Your task to perform on an android device: all mails in gmail Image 0: 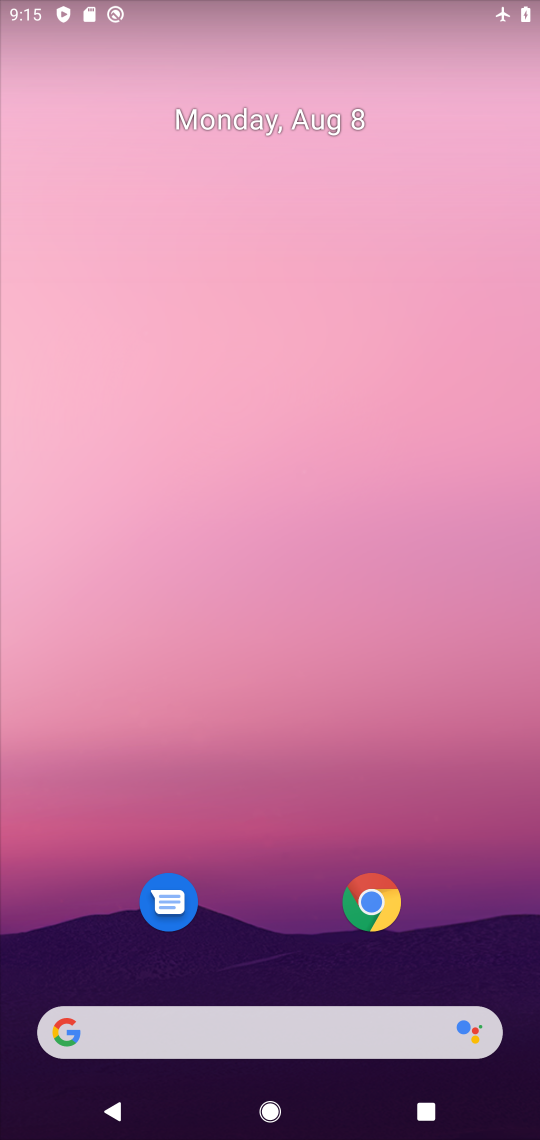
Step 0: drag from (254, 944) to (176, 237)
Your task to perform on an android device: all mails in gmail Image 1: 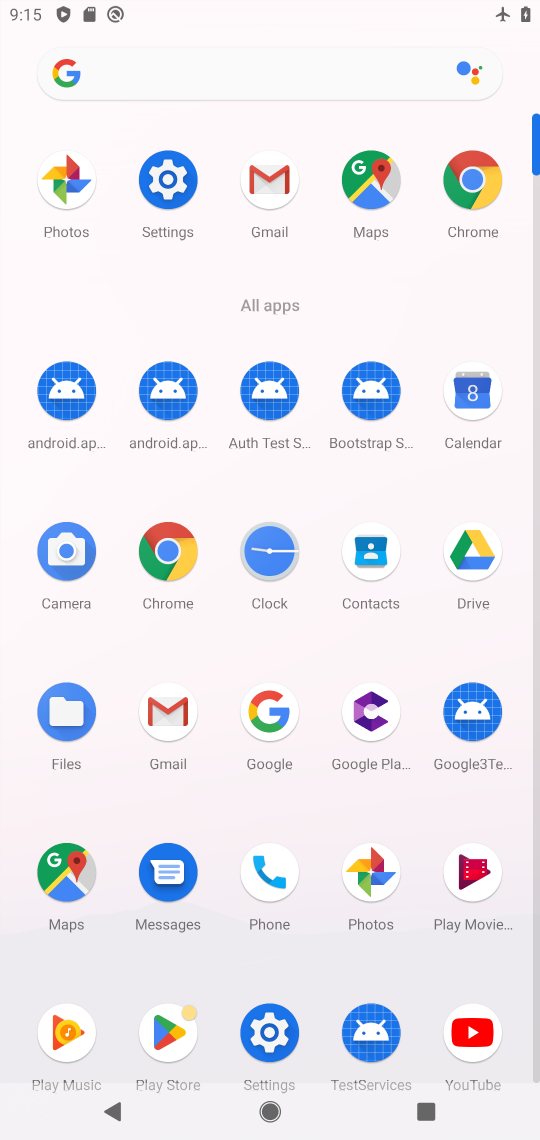
Step 1: click (158, 741)
Your task to perform on an android device: all mails in gmail Image 2: 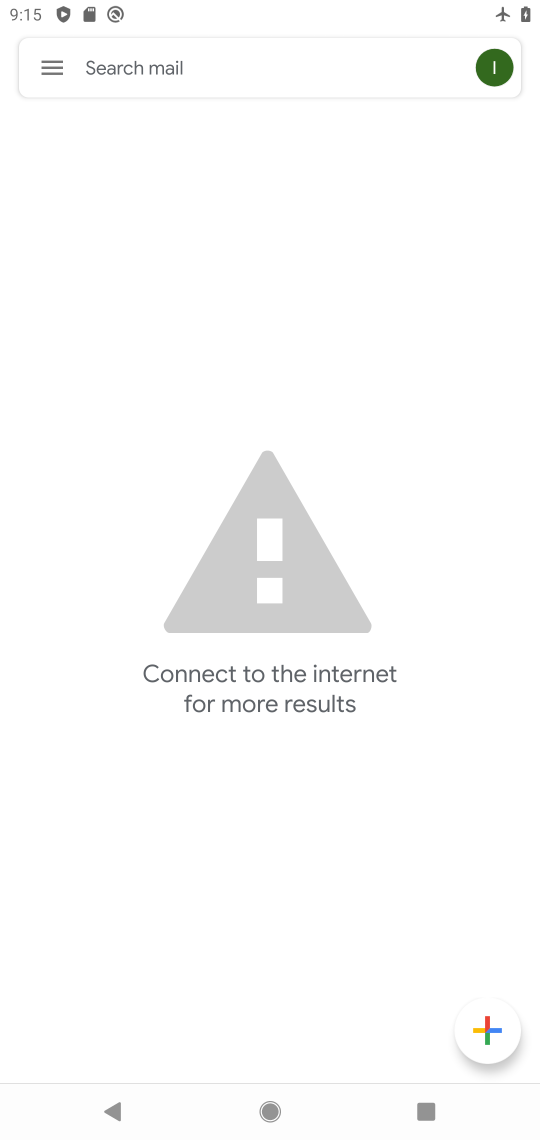
Step 2: click (25, 58)
Your task to perform on an android device: all mails in gmail Image 3: 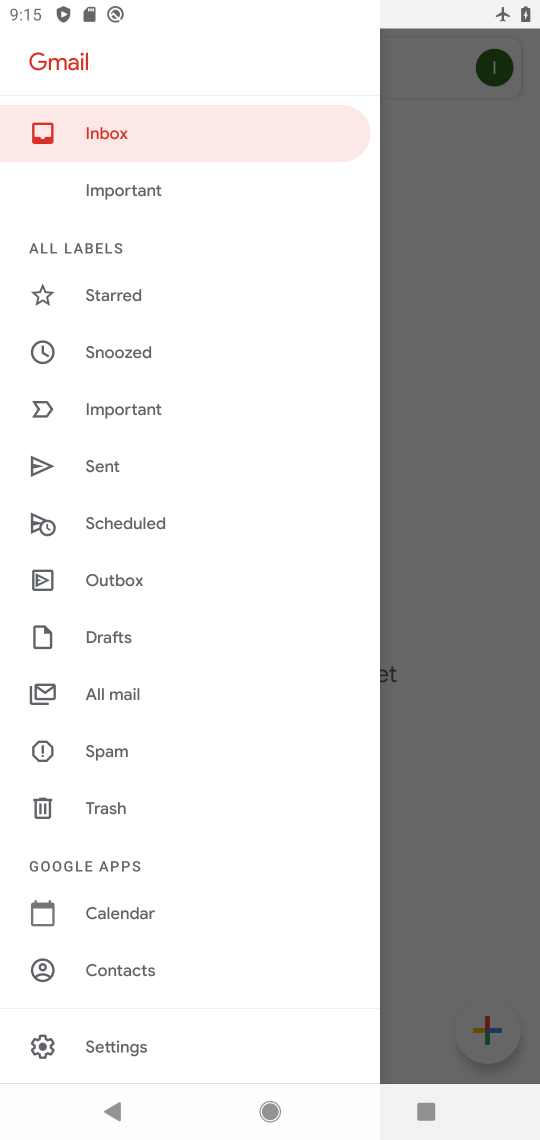
Step 3: click (157, 682)
Your task to perform on an android device: all mails in gmail Image 4: 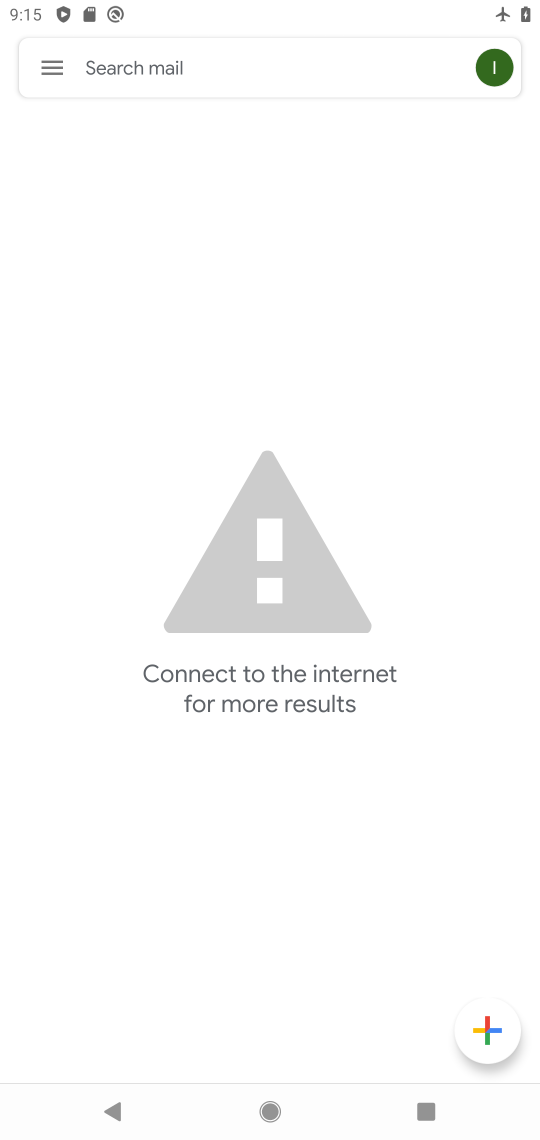
Step 4: task complete